Your task to perform on an android device: Check the weather Image 0: 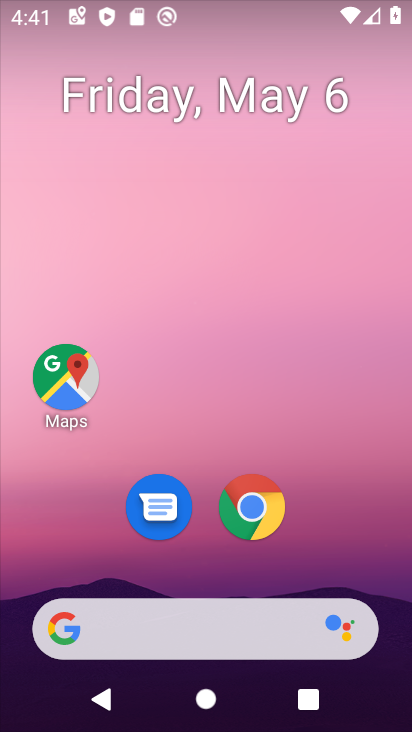
Step 0: click (200, 639)
Your task to perform on an android device: Check the weather Image 1: 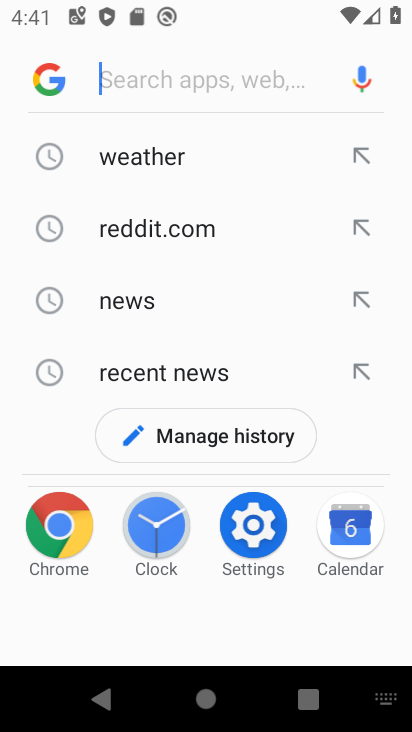
Step 1: click (134, 161)
Your task to perform on an android device: Check the weather Image 2: 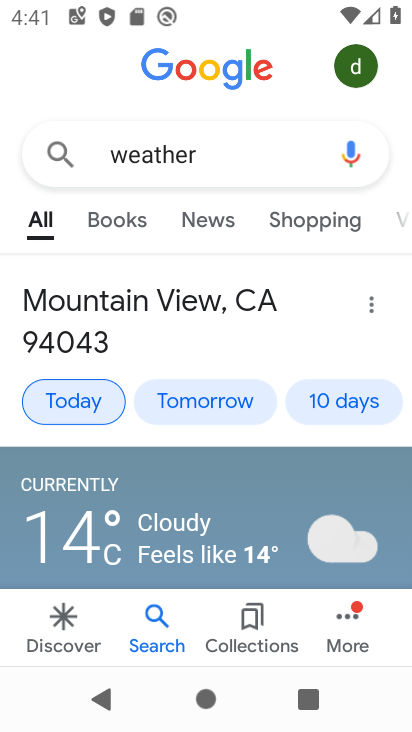
Step 2: task complete